Your task to perform on an android device: What's on my calendar tomorrow? Image 0: 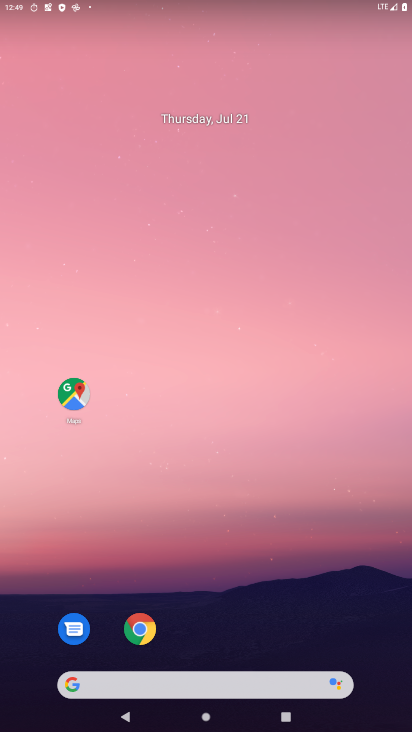
Step 0: drag from (287, 681) to (180, 86)
Your task to perform on an android device: What's on my calendar tomorrow? Image 1: 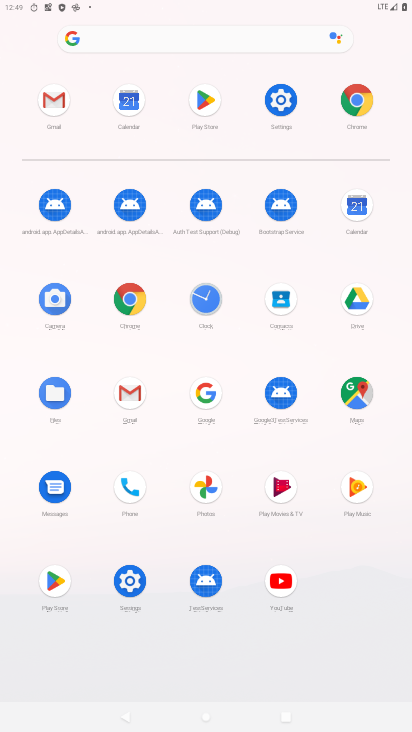
Step 1: click (349, 208)
Your task to perform on an android device: What's on my calendar tomorrow? Image 2: 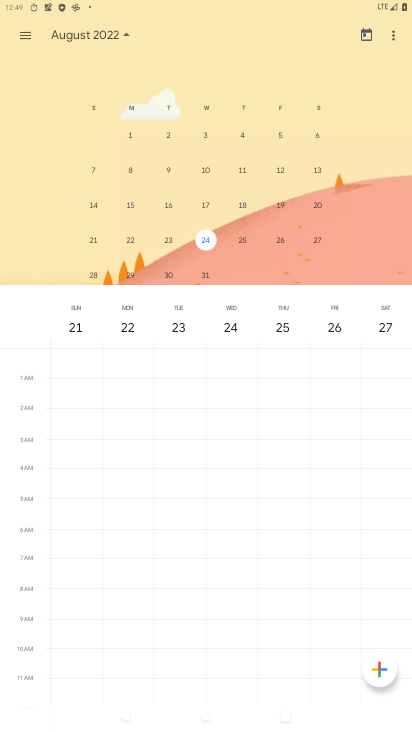
Step 2: click (203, 238)
Your task to perform on an android device: What's on my calendar tomorrow? Image 3: 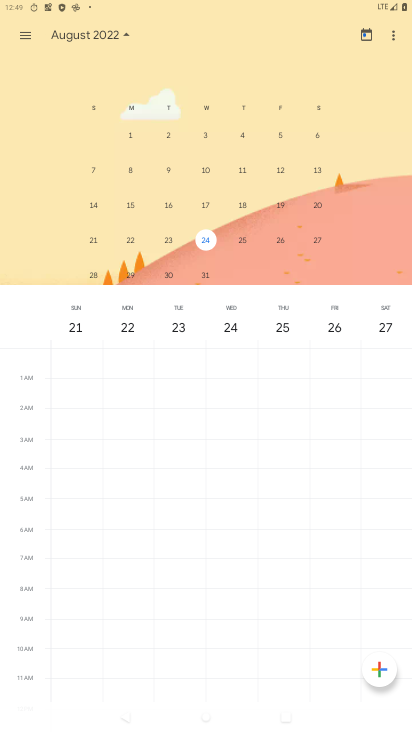
Step 3: task complete